Your task to perform on an android device: manage bookmarks in the chrome app Image 0: 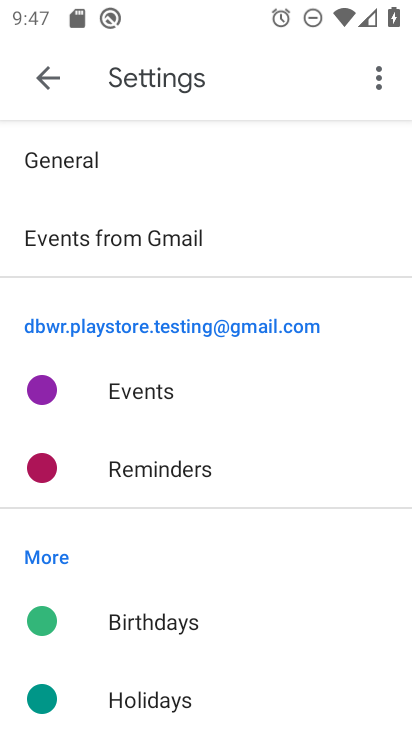
Step 0: press home button
Your task to perform on an android device: manage bookmarks in the chrome app Image 1: 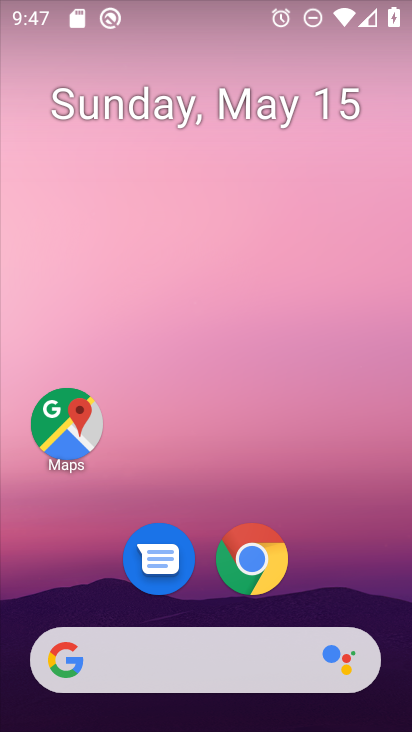
Step 1: click (247, 579)
Your task to perform on an android device: manage bookmarks in the chrome app Image 2: 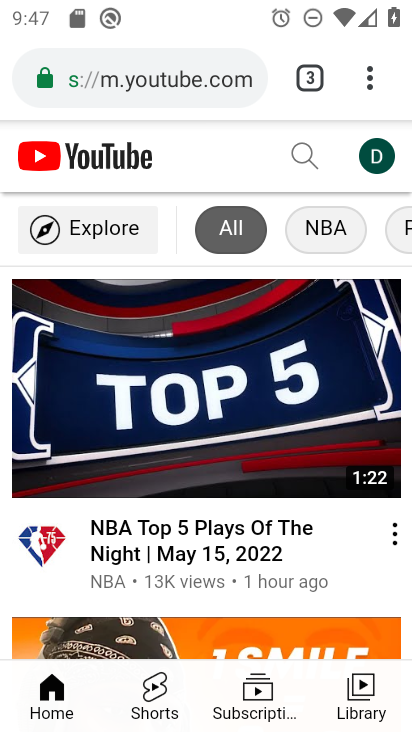
Step 2: click (370, 82)
Your task to perform on an android device: manage bookmarks in the chrome app Image 3: 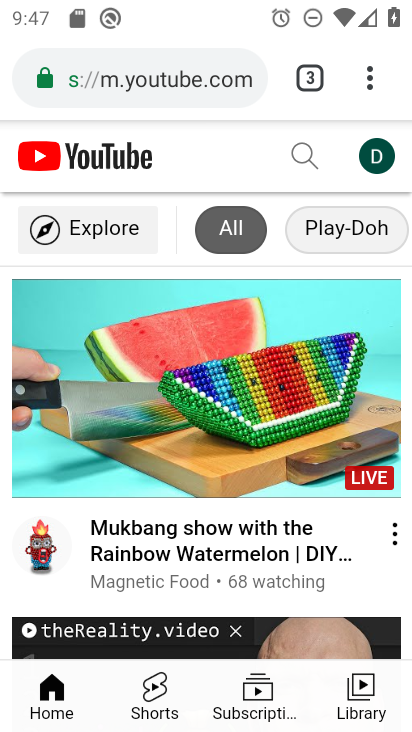
Step 3: click (372, 77)
Your task to perform on an android device: manage bookmarks in the chrome app Image 4: 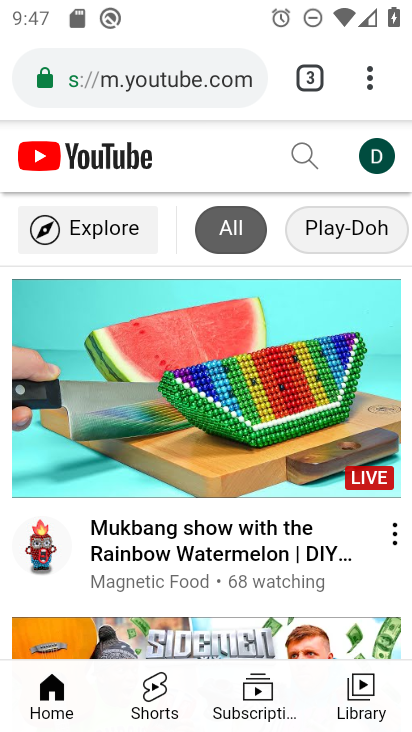
Step 4: click (372, 77)
Your task to perform on an android device: manage bookmarks in the chrome app Image 5: 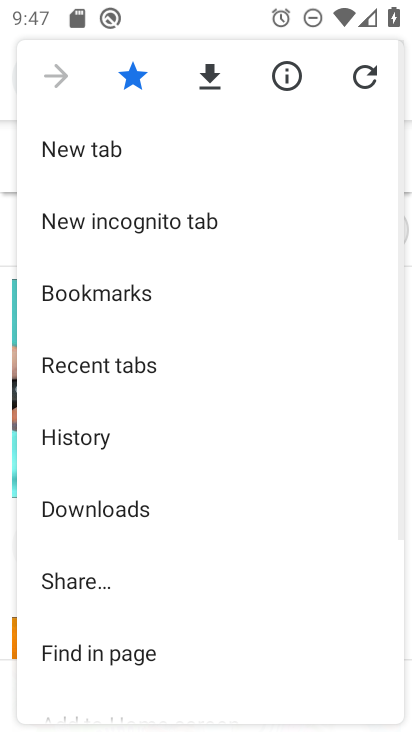
Step 5: drag from (172, 561) to (233, 282)
Your task to perform on an android device: manage bookmarks in the chrome app Image 6: 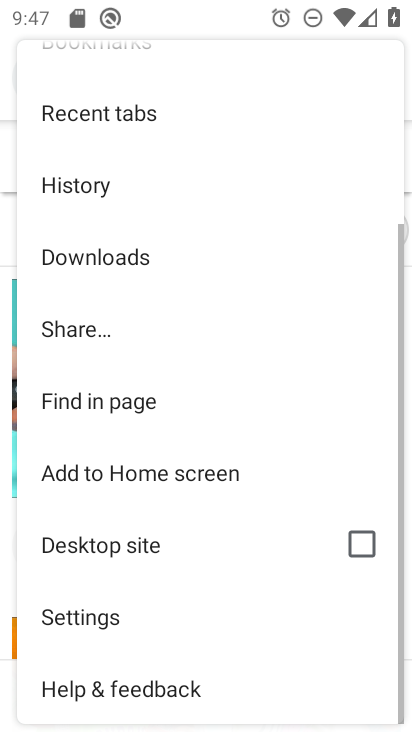
Step 6: click (164, 623)
Your task to perform on an android device: manage bookmarks in the chrome app Image 7: 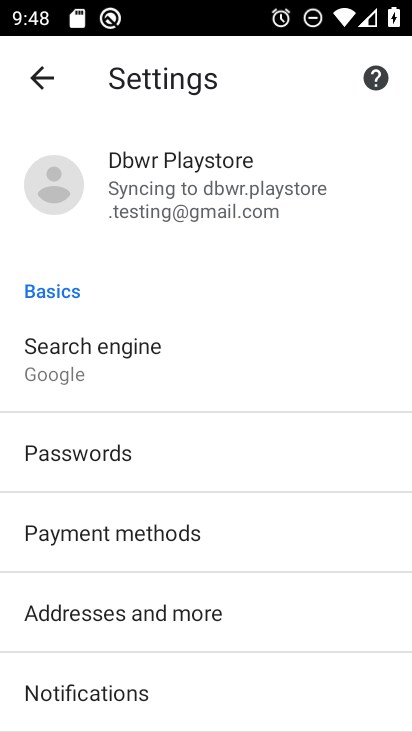
Step 7: drag from (164, 623) to (196, 441)
Your task to perform on an android device: manage bookmarks in the chrome app Image 8: 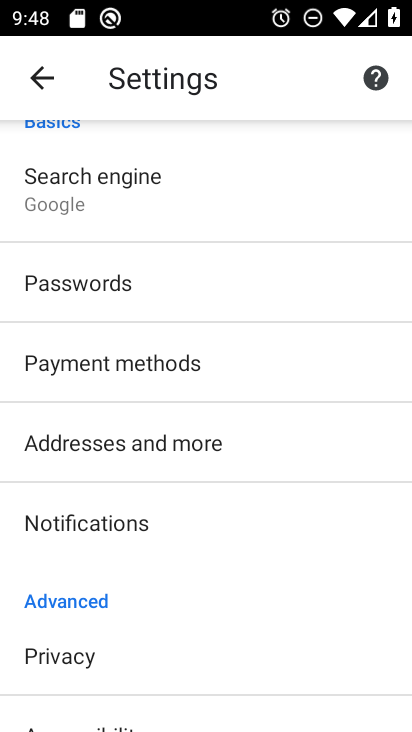
Step 8: drag from (166, 521) to (200, 283)
Your task to perform on an android device: manage bookmarks in the chrome app Image 9: 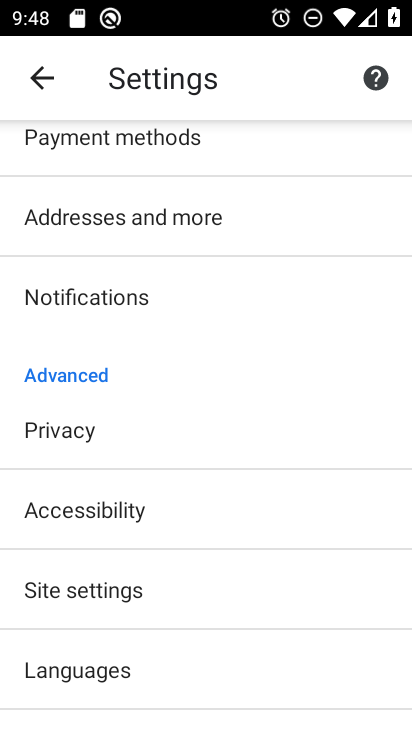
Step 9: drag from (175, 232) to (172, 634)
Your task to perform on an android device: manage bookmarks in the chrome app Image 10: 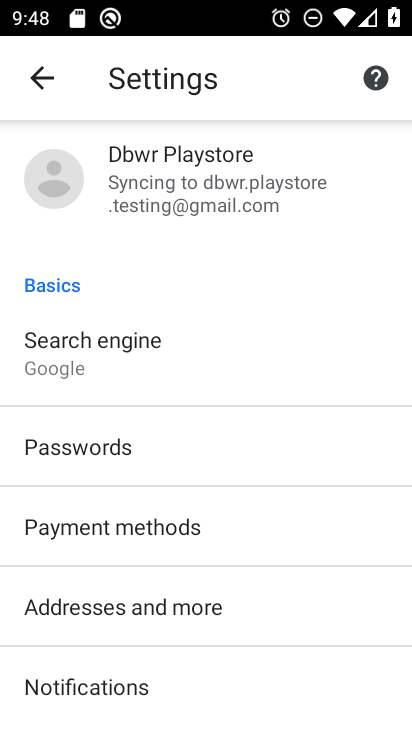
Step 10: click (62, 77)
Your task to perform on an android device: manage bookmarks in the chrome app Image 11: 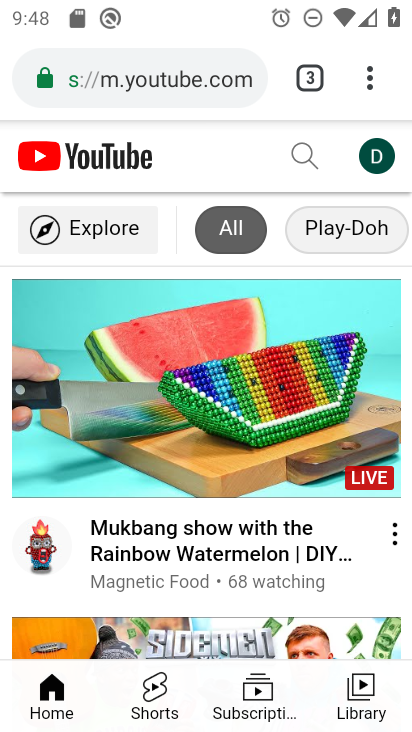
Step 11: click (363, 81)
Your task to perform on an android device: manage bookmarks in the chrome app Image 12: 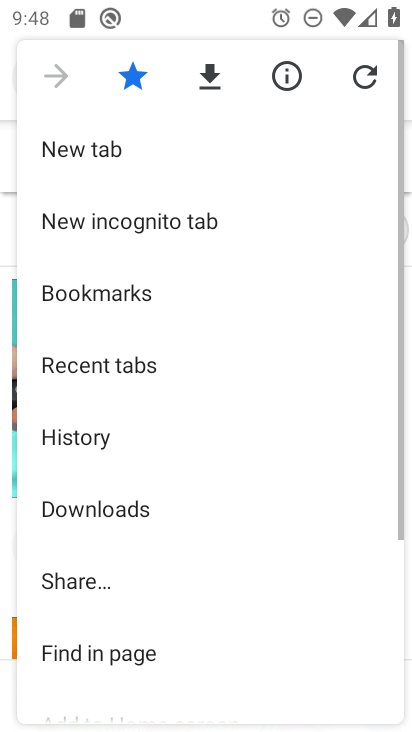
Step 12: click (189, 288)
Your task to perform on an android device: manage bookmarks in the chrome app Image 13: 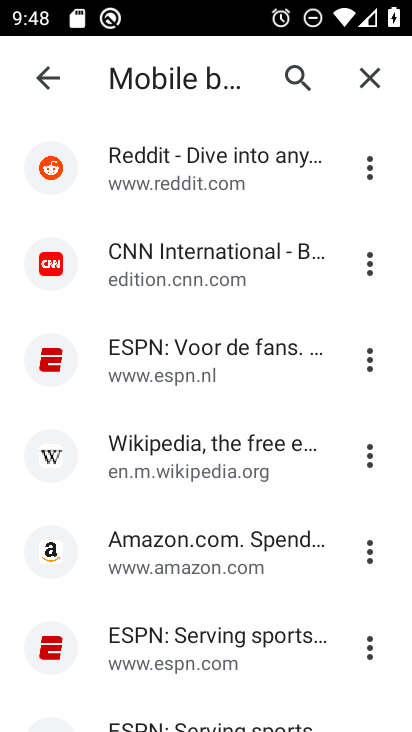
Step 13: click (383, 255)
Your task to perform on an android device: manage bookmarks in the chrome app Image 14: 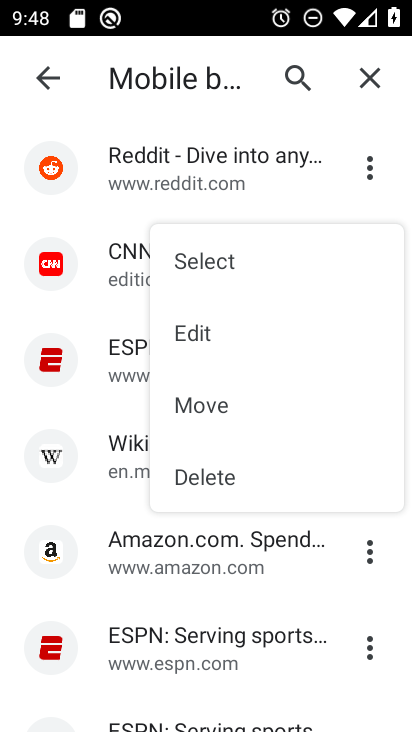
Step 14: click (231, 458)
Your task to perform on an android device: manage bookmarks in the chrome app Image 15: 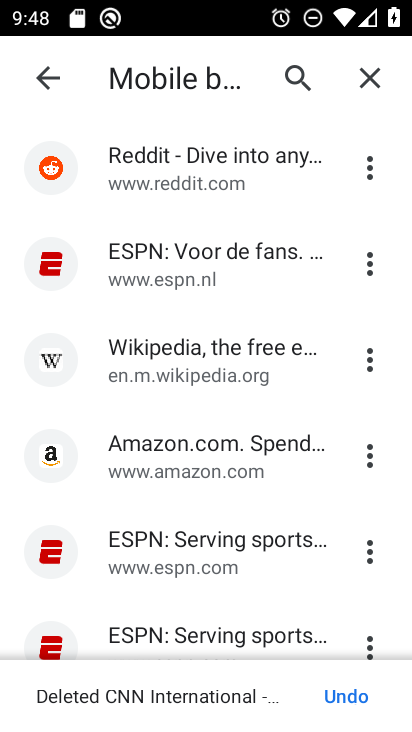
Step 15: task complete